Your task to perform on an android device: change your default location settings in chrome Image 0: 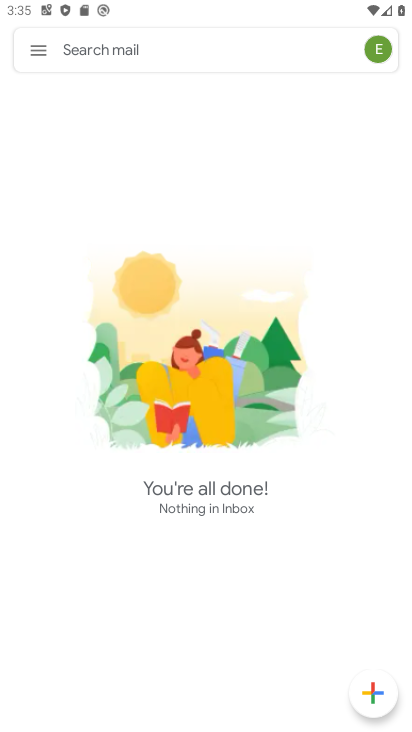
Step 0: press home button
Your task to perform on an android device: change your default location settings in chrome Image 1: 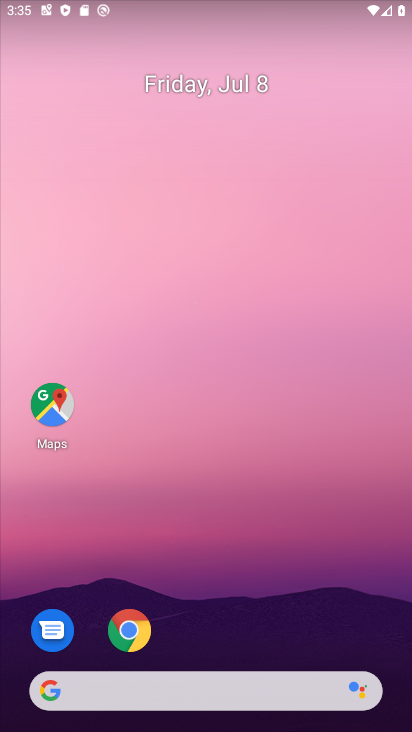
Step 1: click (126, 650)
Your task to perform on an android device: change your default location settings in chrome Image 2: 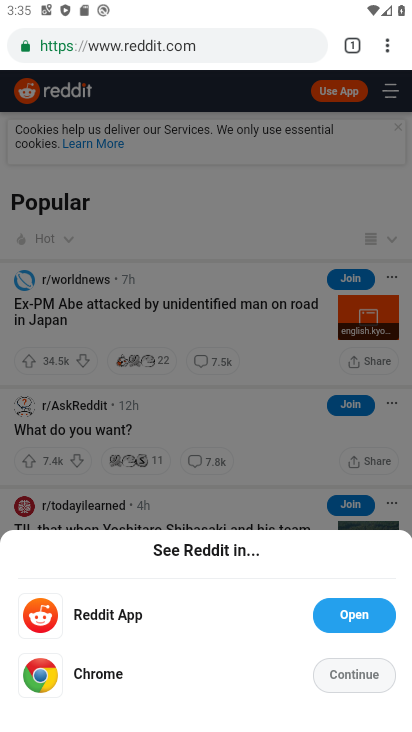
Step 2: click (391, 44)
Your task to perform on an android device: change your default location settings in chrome Image 3: 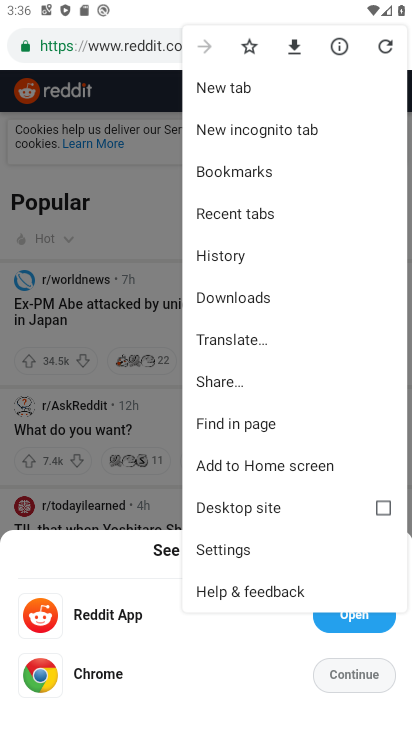
Step 3: click (235, 548)
Your task to perform on an android device: change your default location settings in chrome Image 4: 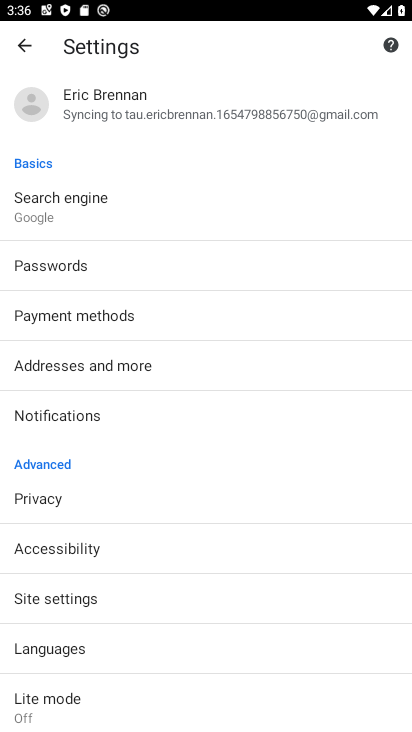
Step 4: click (76, 606)
Your task to perform on an android device: change your default location settings in chrome Image 5: 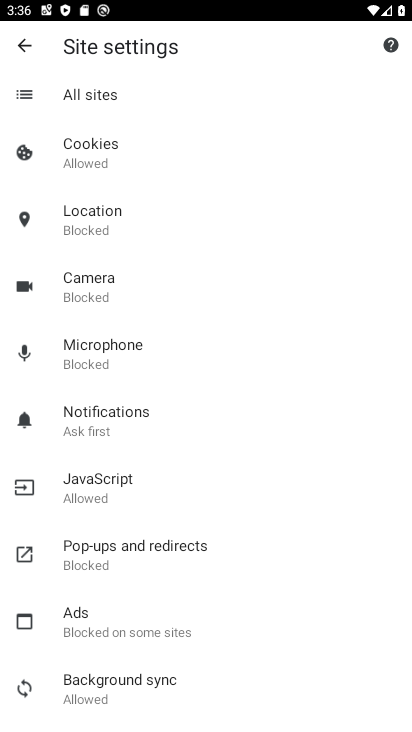
Step 5: click (102, 229)
Your task to perform on an android device: change your default location settings in chrome Image 6: 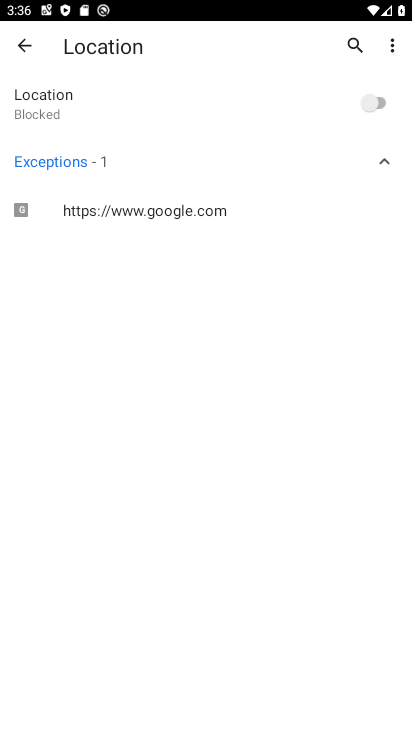
Step 6: click (371, 102)
Your task to perform on an android device: change your default location settings in chrome Image 7: 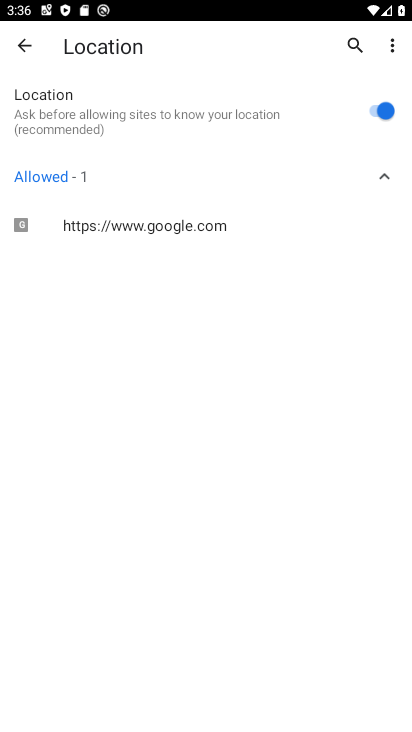
Step 7: task complete